Your task to perform on an android device: What's the news in Uruguay? Image 0: 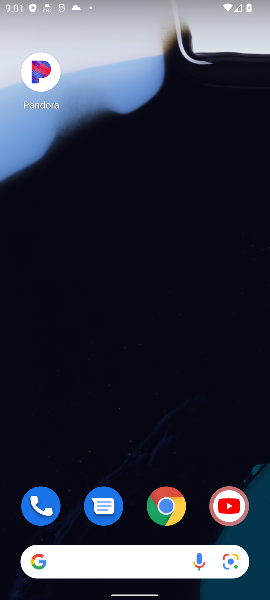
Step 0: click (165, 501)
Your task to perform on an android device: What's the news in Uruguay? Image 1: 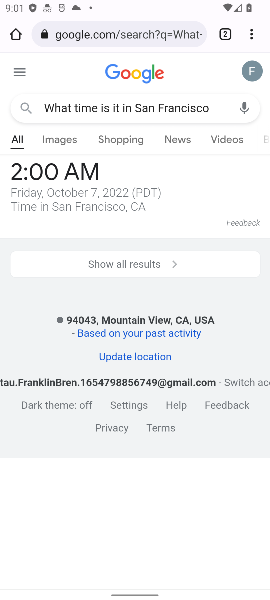
Step 1: click (153, 32)
Your task to perform on an android device: What's the news in Uruguay? Image 2: 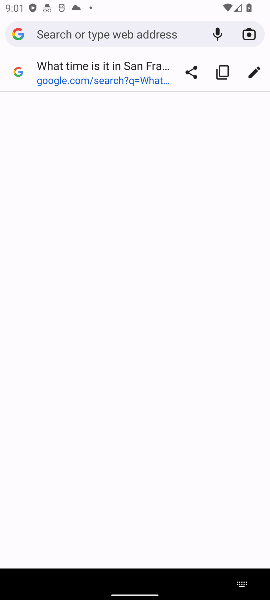
Step 2: type "news in Uruguay"
Your task to perform on an android device: What's the news in Uruguay? Image 3: 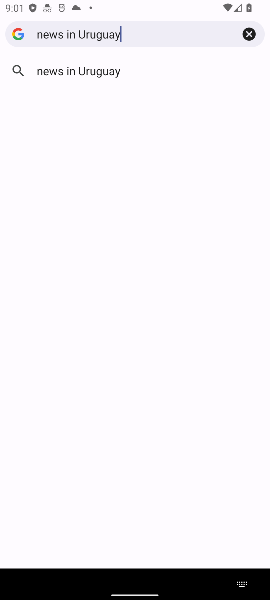
Step 3: click (81, 71)
Your task to perform on an android device: What's the news in Uruguay? Image 4: 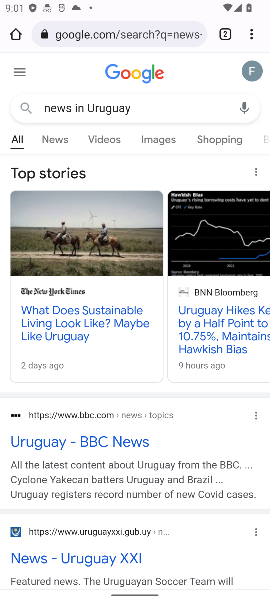
Step 4: click (51, 138)
Your task to perform on an android device: What's the news in Uruguay? Image 5: 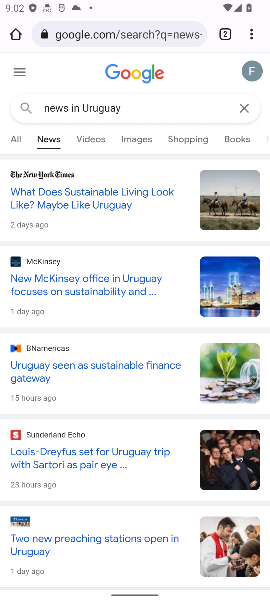
Step 5: task complete